Your task to perform on an android device: Go to sound settings Image 0: 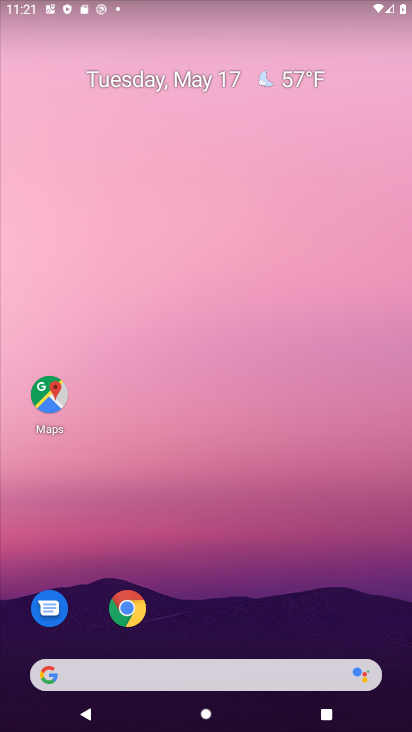
Step 0: drag from (214, 587) to (324, 1)
Your task to perform on an android device: Go to sound settings Image 1: 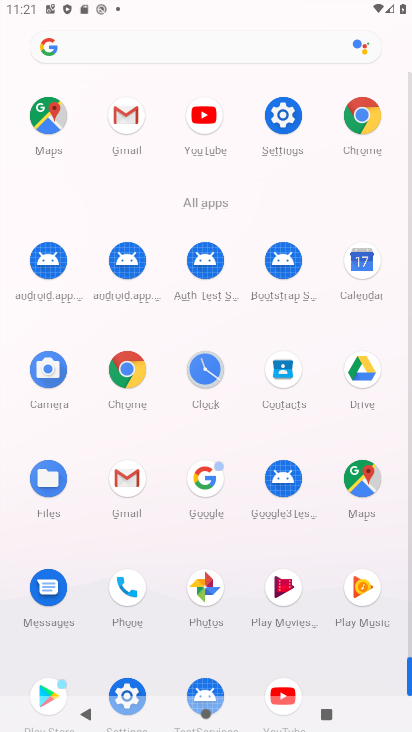
Step 1: click (290, 121)
Your task to perform on an android device: Go to sound settings Image 2: 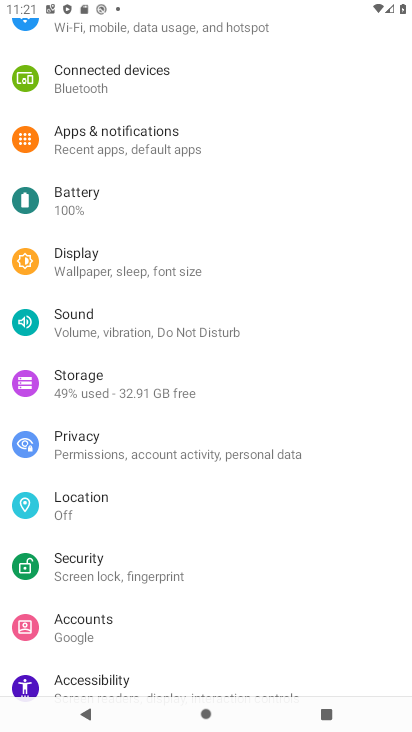
Step 2: click (134, 330)
Your task to perform on an android device: Go to sound settings Image 3: 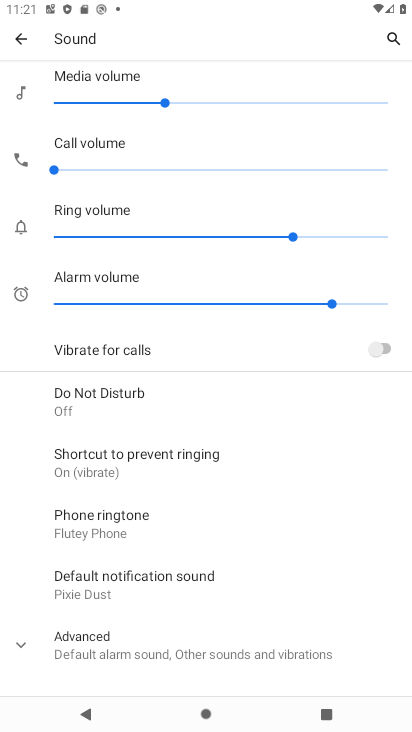
Step 3: task complete